Your task to perform on an android device: Open Amazon Image 0: 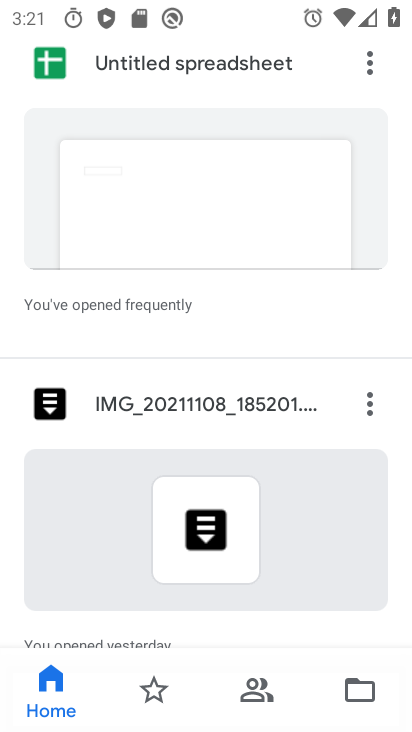
Step 0: press home button
Your task to perform on an android device: Open Amazon Image 1: 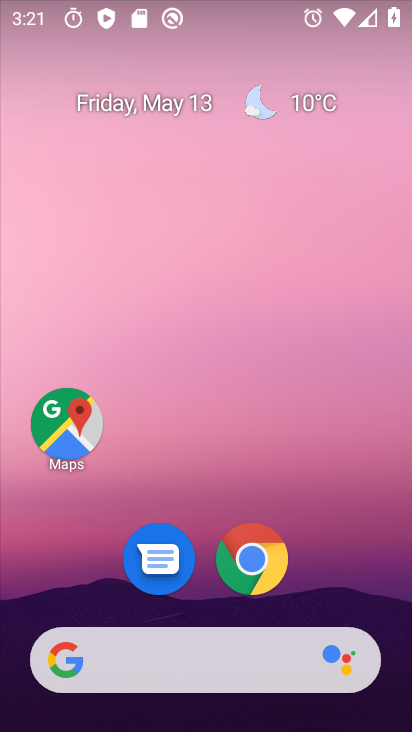
Step 1: click (233, 553)
Your task to perform on an android device: Open Amazon Image 2: 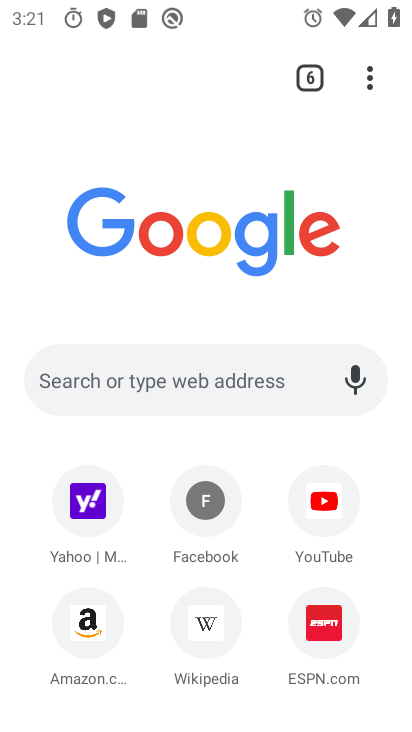
Step 2: click (88, 622)
Your task to perform on an android device: Open Amazon Image 3: 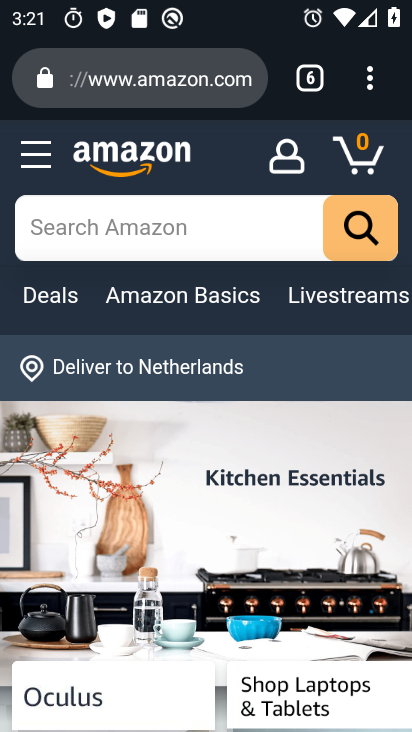
Step 3: task complete